Your task to perform on an android device: show emergency info Image 0: 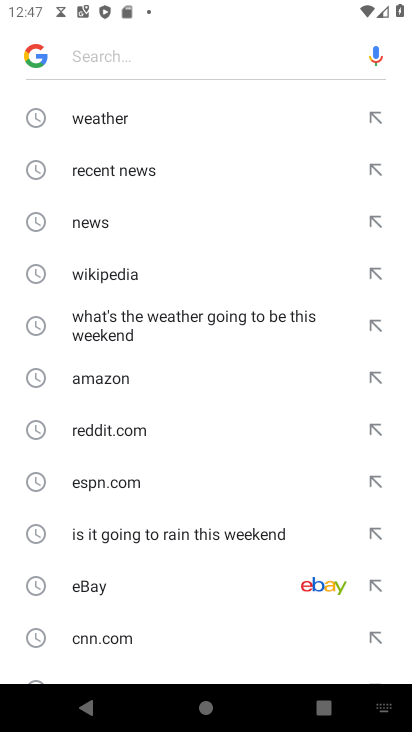
Step 0: press home button
Your task to perform on an android device: show emergency info Image 1: 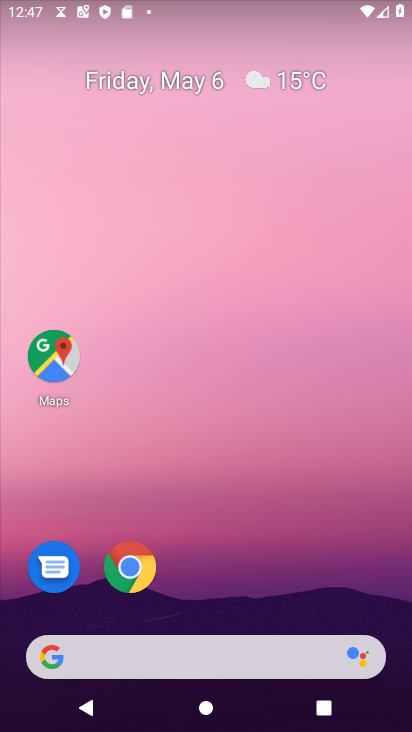
Step 1: drag from (330, 563) to (384, 25)
Your task to perform on an android device: show emergency info Image 2: 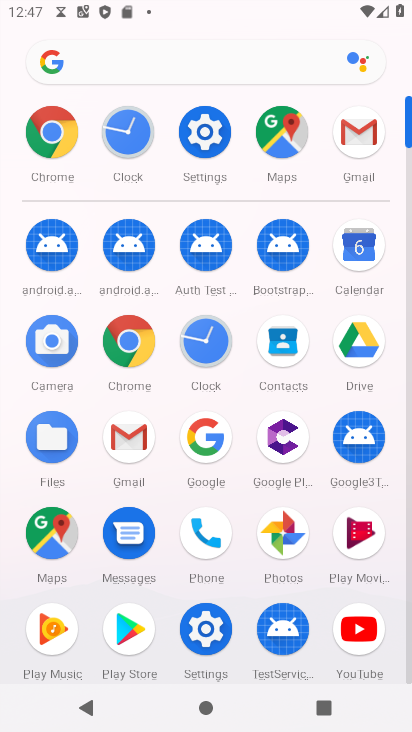
Step 2: click (212, 140)
Your task to perform on an android device: show emergency info Image 3: 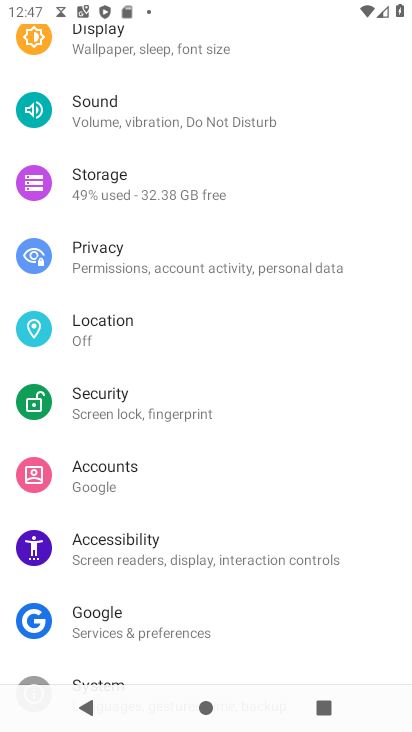
Step 3: drag from (217, 577) to (251, 120)
Your task to perform on an android device: show emergency info Image 4: 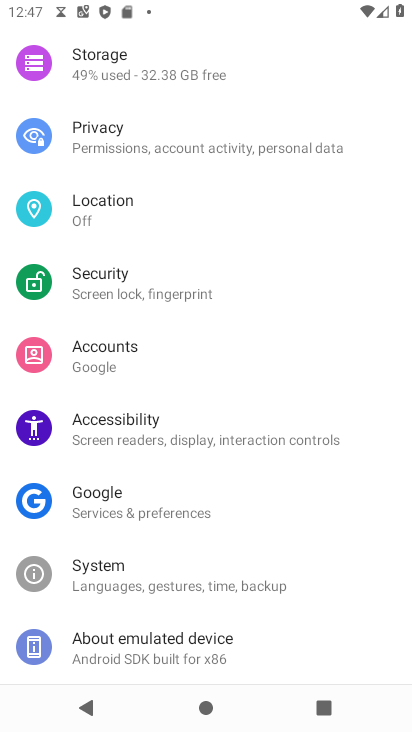
Step 4: click (184, 666)
Your task to perform on an android device: show emergency info Image 5: 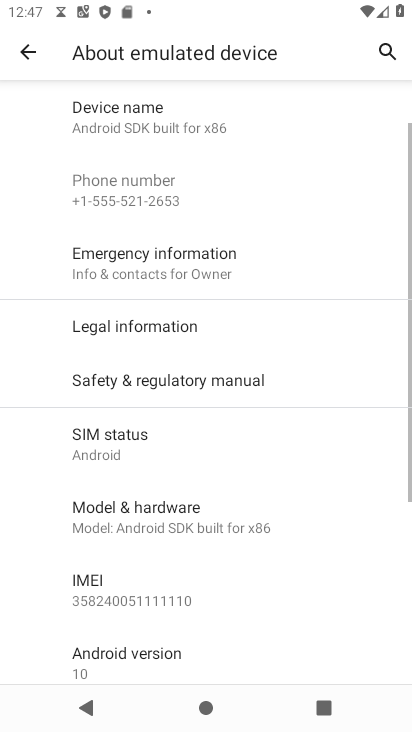
Step 5: click (121, 241)
Your task to perform on an android device: show emergency info Image 6: 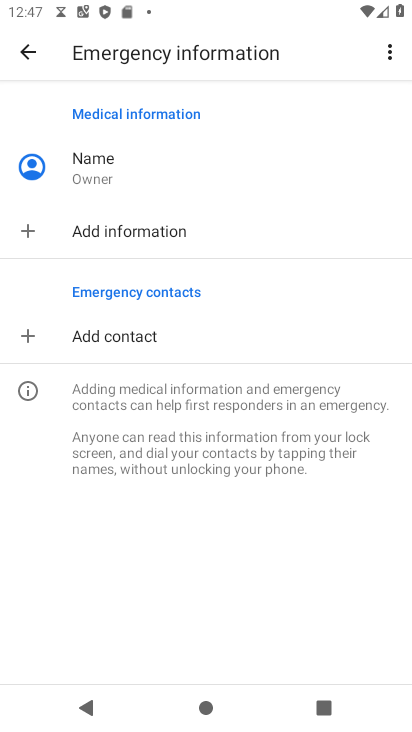
Step 6: task complete